Your task to perform on an android device: What's the weather? Image 0: 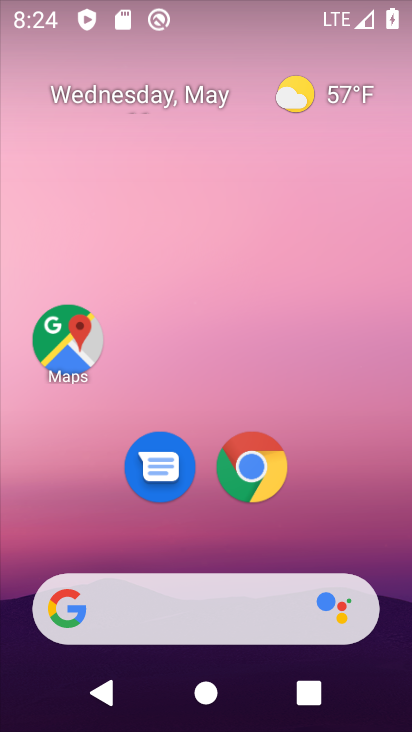
Step 0: drag from (324, 623) to (113, 35)
Your task to perform on an android device: What's the weather? Image 1: 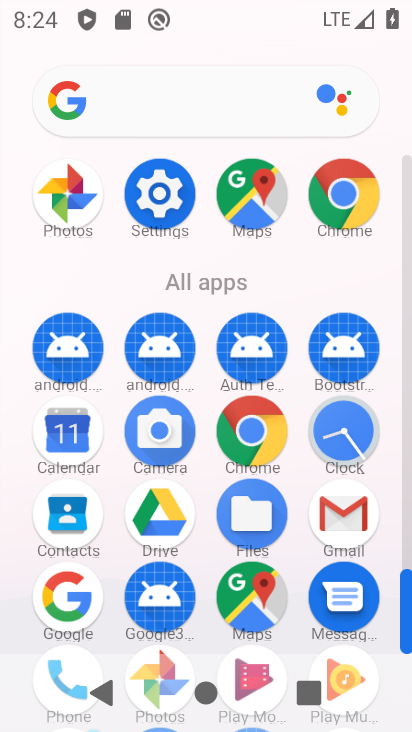
Step 1: press back button
Your task to perform on an android device: What's the weather? Image 2: 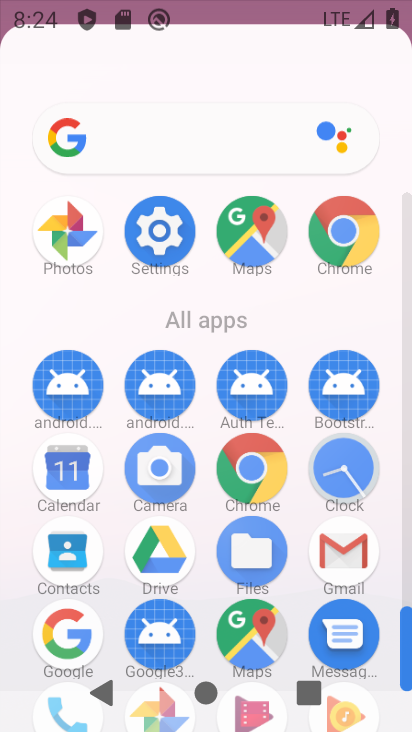
Step 2: press back button
Your task to perform on an android device: What's the weather? Image 3: 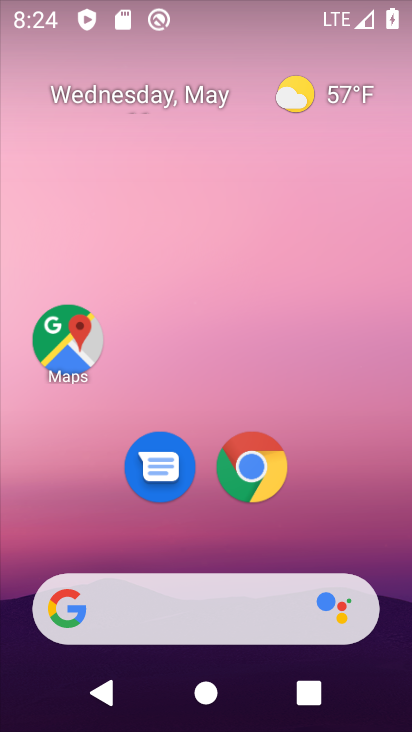
Step 3: drag from (5, 159) to (393, 222)
Your task to perform on an android device: What's the weather? Image 4: 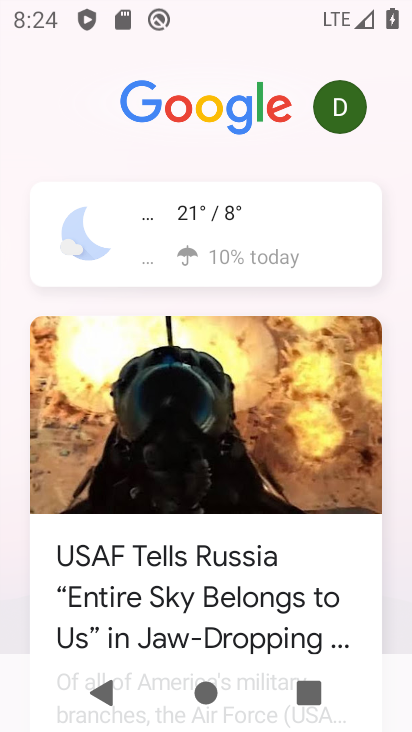
Step 4: click (181, 234)
Your task to perform on an android device: What's the weather? Image 5: 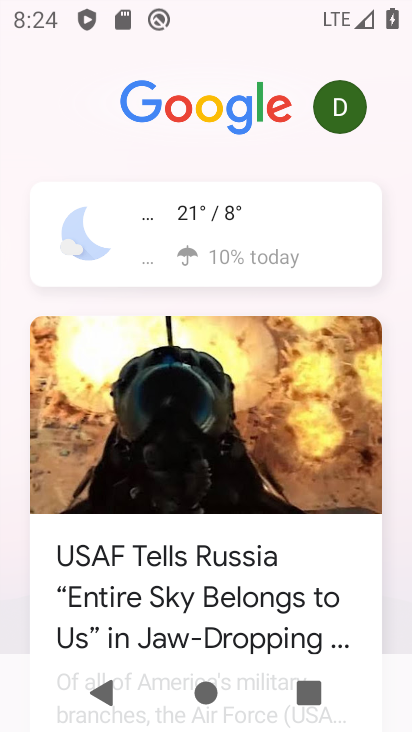
Step 5: click (181, 234)
Your task to perform on an android device: What's the weather? Image 6: 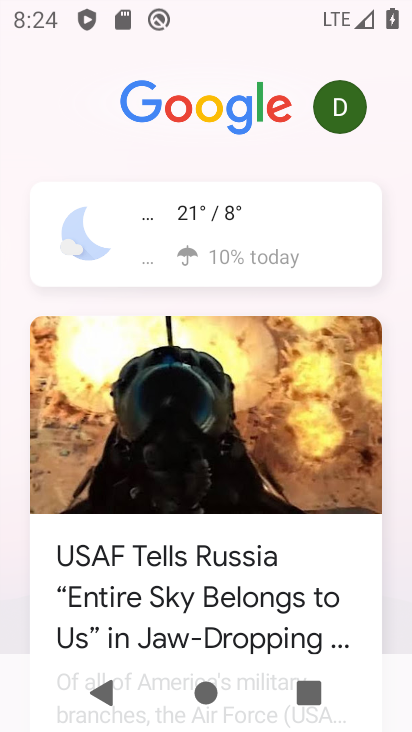
Step 6: click (181, 234)
Your task to perform on an android device: What's the weather? Image 7: 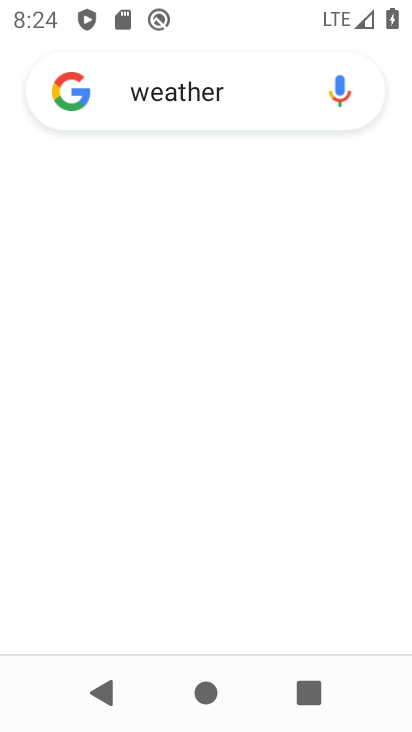
Step 7: click (175, 231)
Your task to perform on an android device: What's the weather? Image 8: 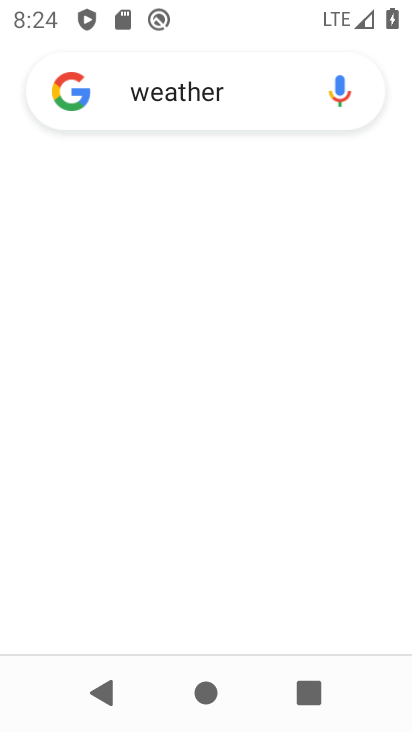
Step 8: click (175, 231)
Your task to perform on an android device: What's the weather? Image 9: 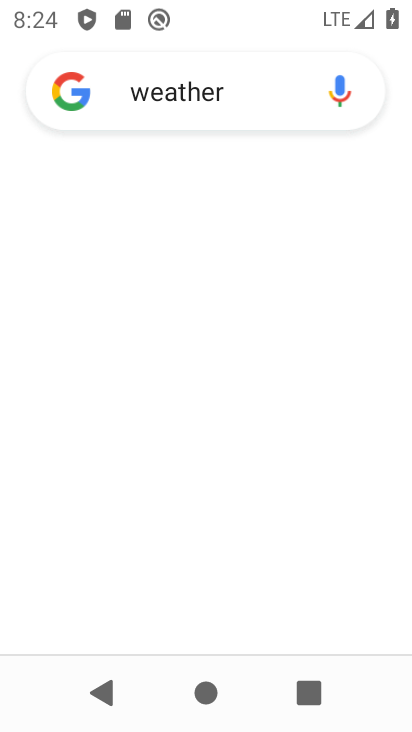
Step 9: click (175, 231)
Your task to perform on an android device: What's the weather? Image 10: 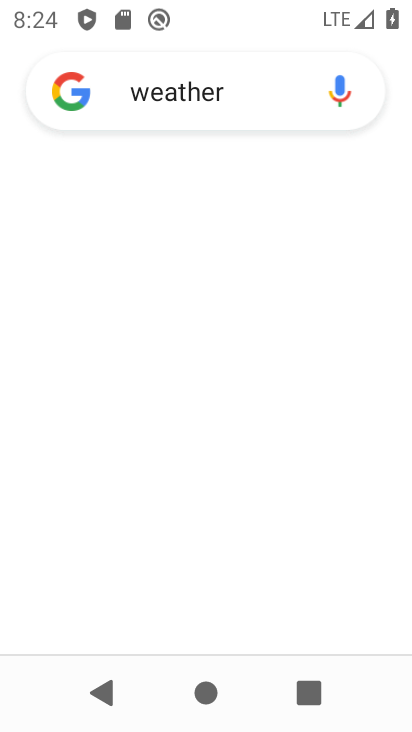
Step 10: click (175, 231)
Your task to perform on an android device: What's the weather? Image 11: 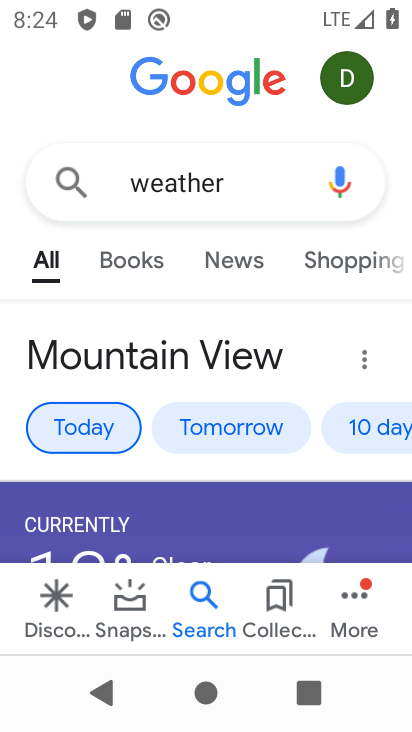
Step 11: click (228, 99)
Your task to perform on an android device: What's the weather? Image 12: 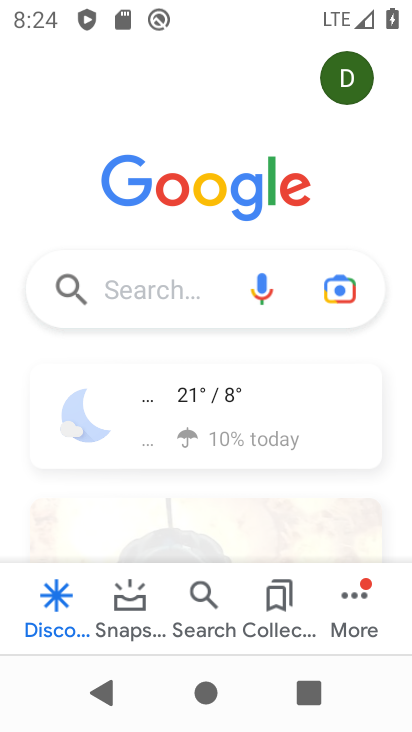
Step 12: click (219, 424)
Your task to perform on an android device: What's the weather? Image 13: 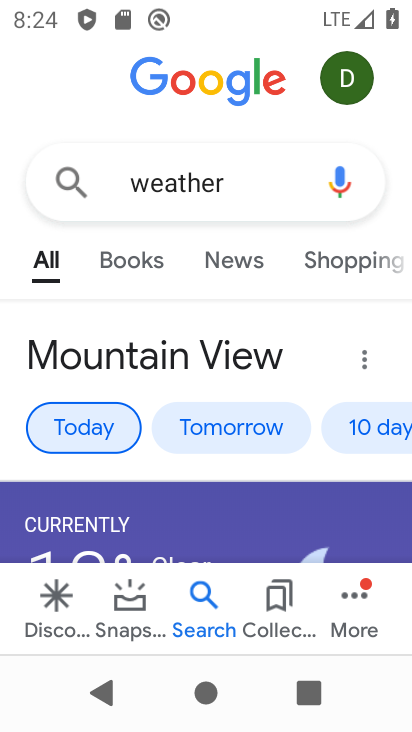
Step 13: click (231, 434)
Your task to perform on an android device: What's the weather? Image 14: 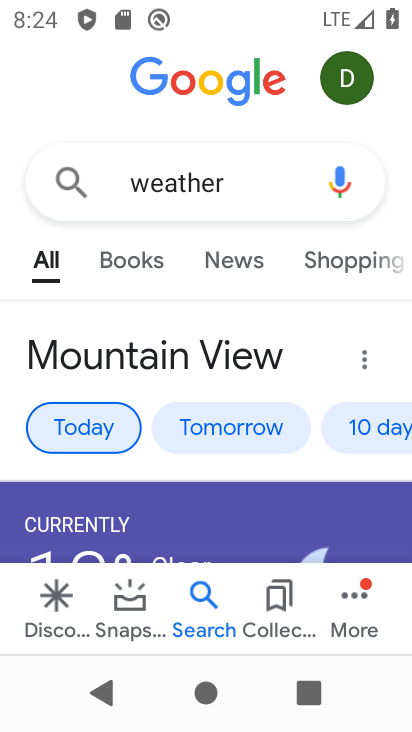
Step 14: click (235, 428)
Your task to perform on an android device: What's the weather? Image 15: 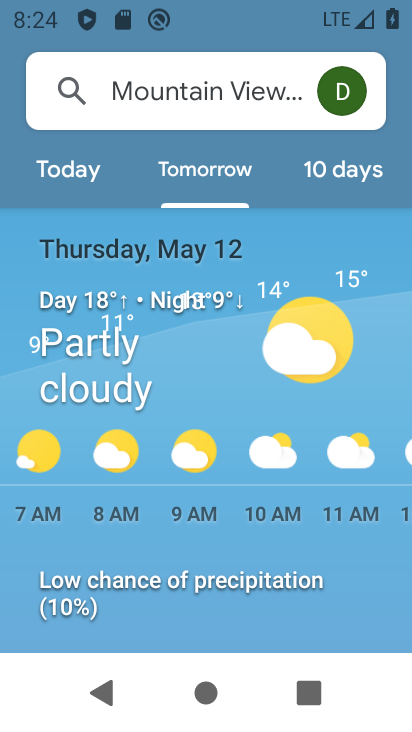
Step 15: click (209, 186)
Your task to perform on an android device: What's the weather? Image 16: 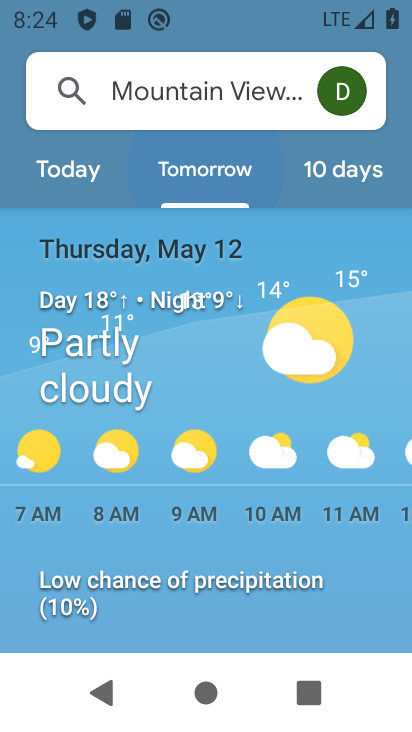
Step 16: click (209, 186)
Your task to perform on an android device: What's the weather? Image 17: 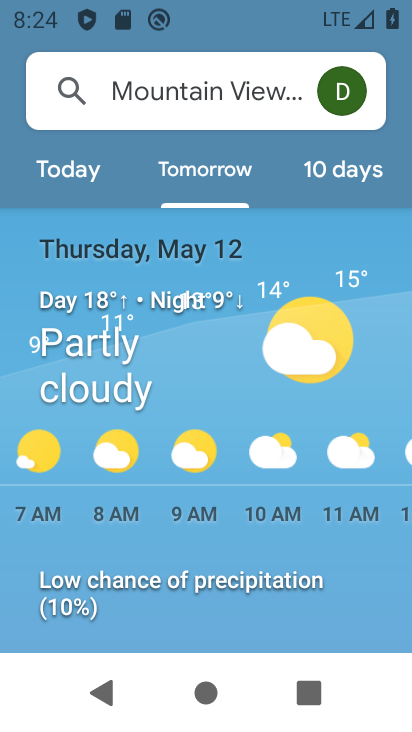
Step 17: click (60, 154)
Your task to perform on an android device: What's the weather? Image 18: 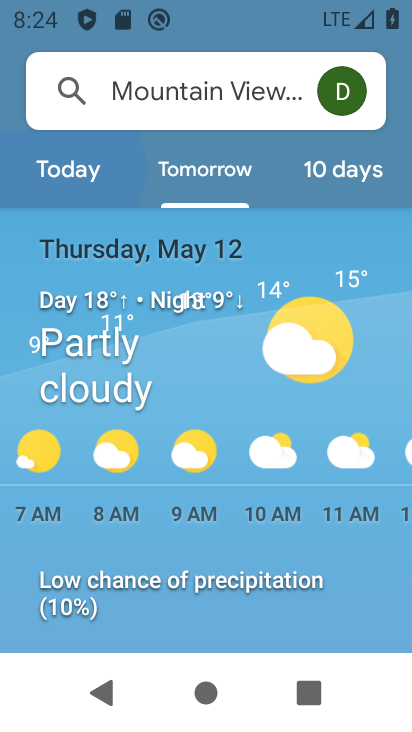
Step 18: click (62, 155)
Your task to perform on an android device: What's the weather? Image 19: 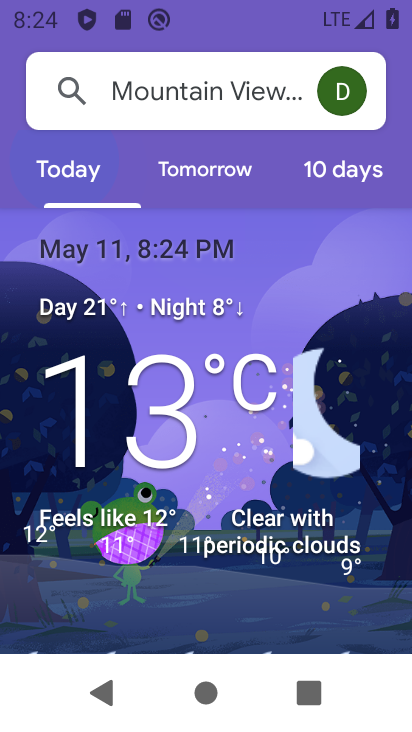
Step 19: click (62, 155)
Your task to perform on an android device: What's the weather? Image 20: 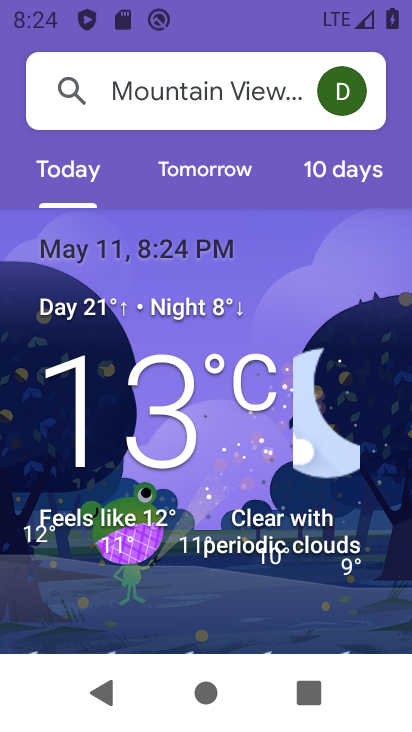
Step 20: click (216, 173)
Your task to perform on an android device: What's the weather? Image 21: 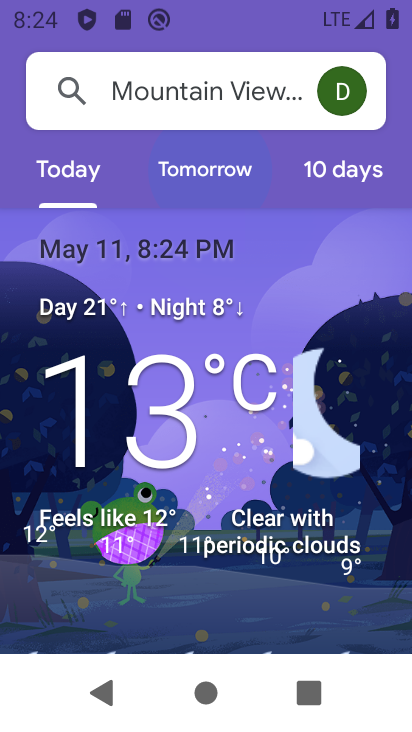
Step 21: click (216, 173)
Your task to perform on an android device: What's the weather? Image 22: 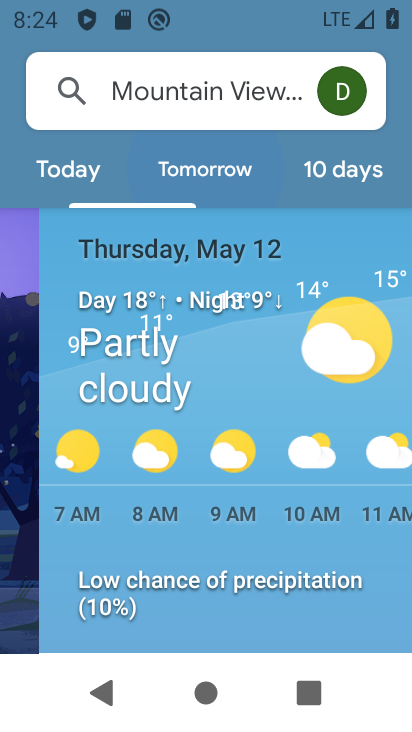
Step 22: click (217, 174)
Your task to perform on an android device: What's the weather? Image 23: 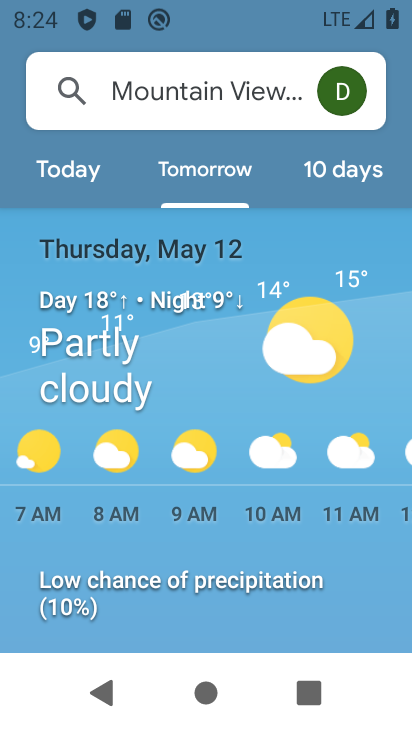
Step 23: task complete